Your task to perform on an android device: Find coffee shops on Maps Image 0: 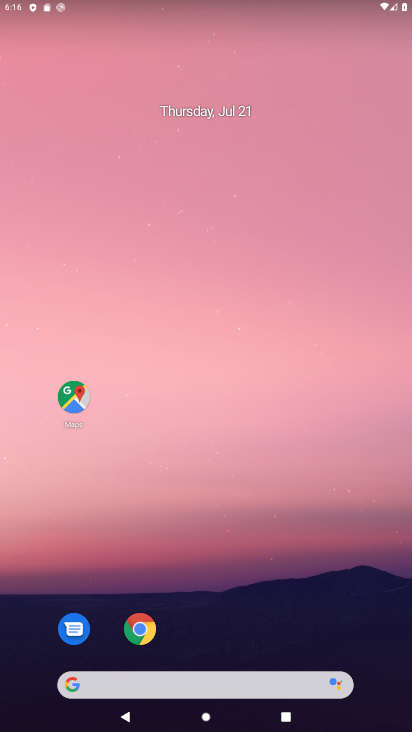
Step 0: click (73, 397)
Your task to perform on an android device: Find coffee shops on Maps Image 1: 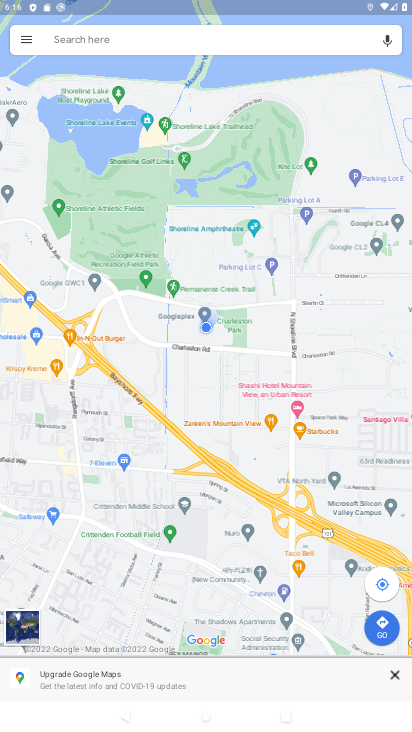
Step 1: click (222, 40)
Your task to perform on an android device: Find coffee shops on Maps Image 2: 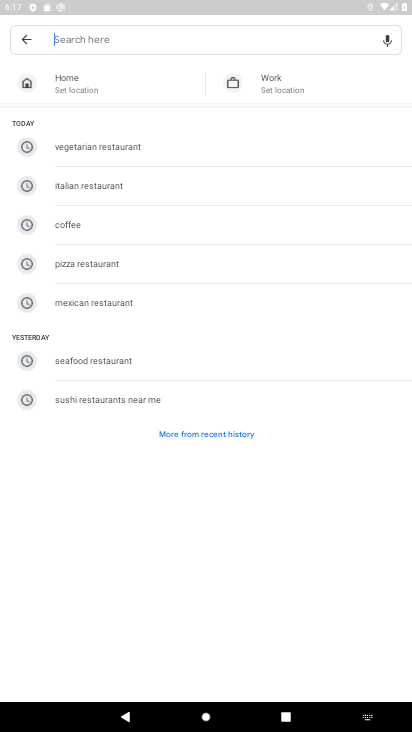
Step 2: type "coffee shops"
Your task to perform on an android device: Find coffee shops on Maps Image 3: 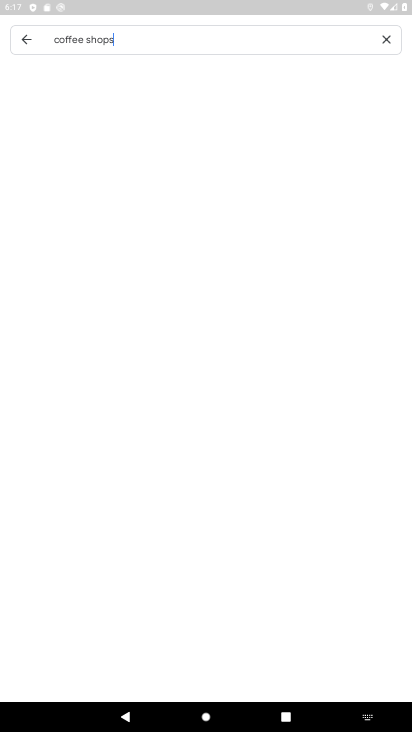
Step 3: type ""
Your task to perform on an android device: Find coffee shops on Maps Image 4: 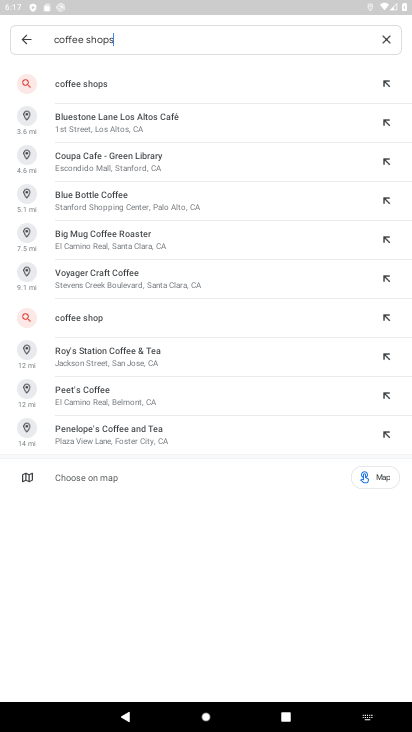
Step 4: click (96, 80)
Your task to perform on an android device: Find coffee shops on Maps Image 5: 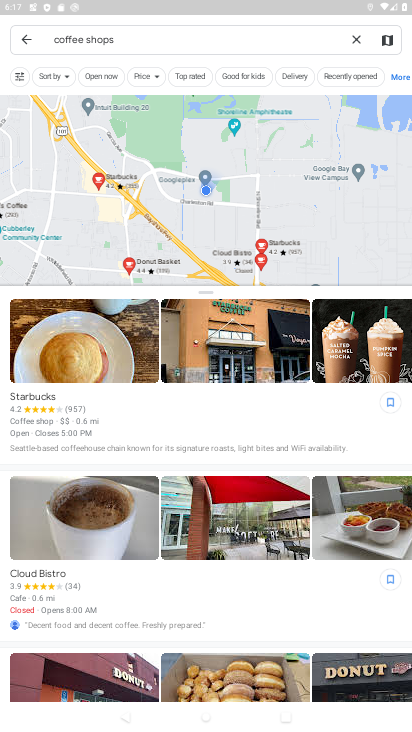
Step 5: task complete